Your task to perform on an android device: Go to Wikipedia Image 0: 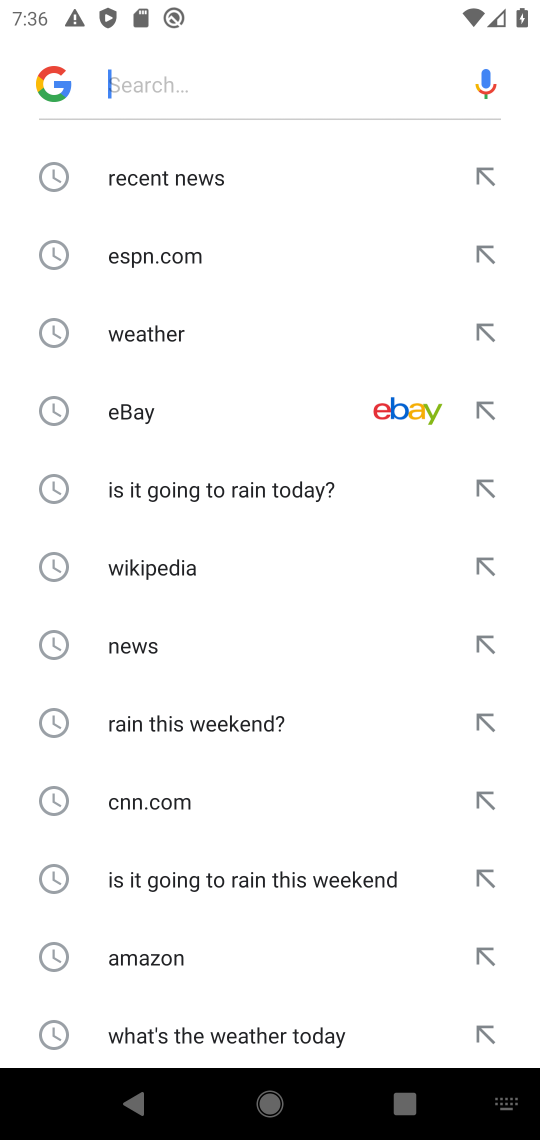
Step 0: press home button
Your task to perform on an android device: Go to Wikipedia Image 1: 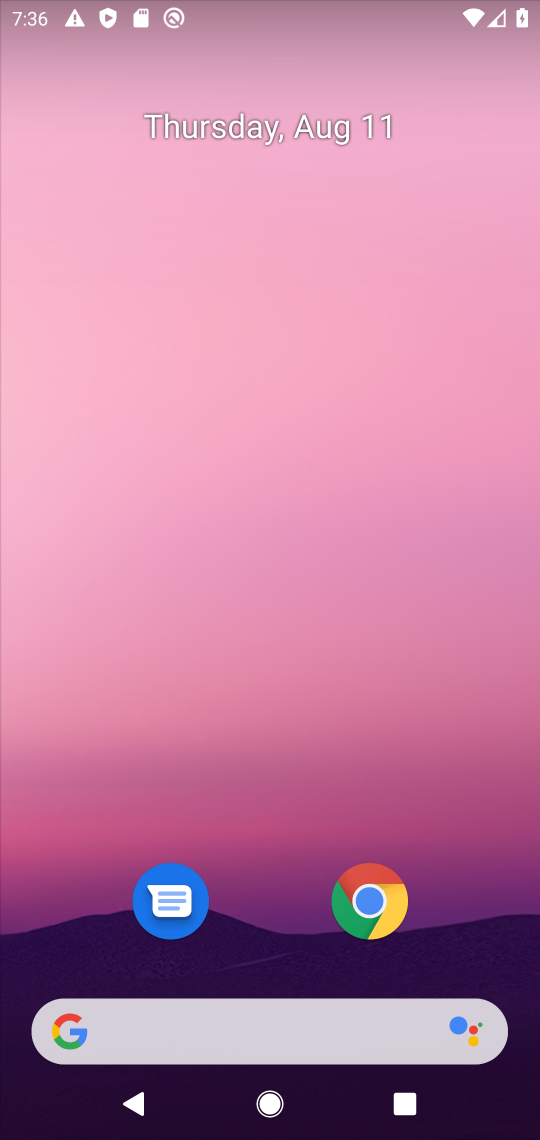
Step 1: drag from (248, 890) to (114, 2)
Your task to perform on an android device: Go to Wikipedia Image 2: 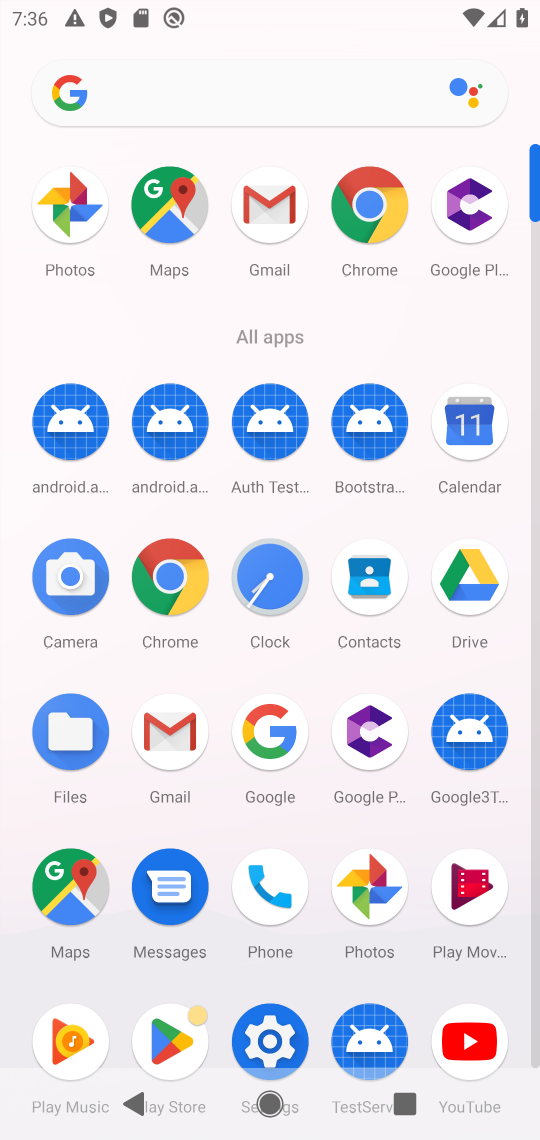
Step 2: click (180, 585)
Your task to perform on an android device: Go to Wikipedia Image 3: 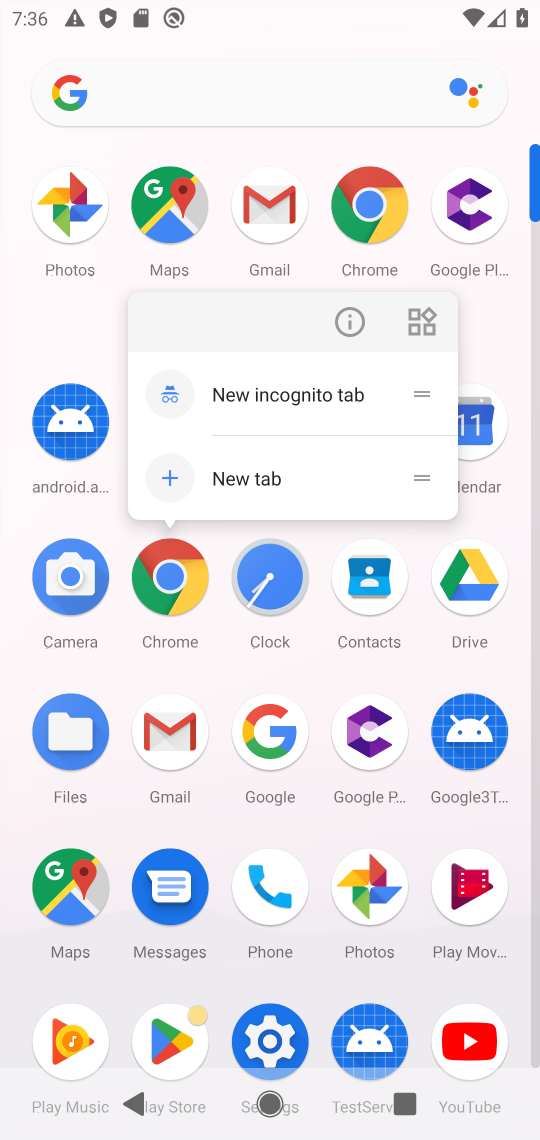
Step 3: click (175, 584)
Your task to perform on an android device: Go to Wikipedia Image 4: 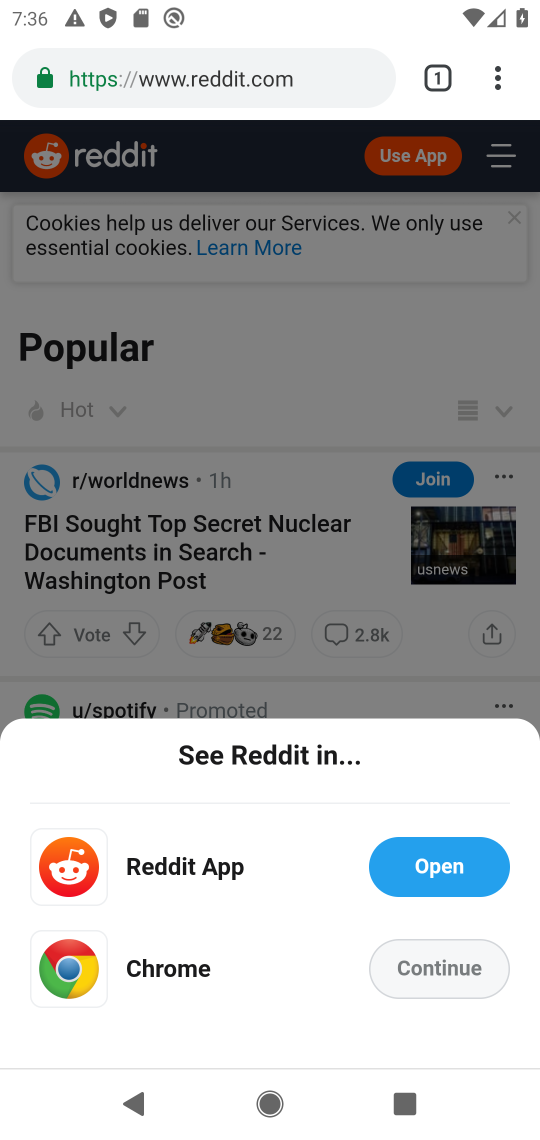
Step 4: click (327, 94)
Your task to perform on an android device: Go to Wikipedia Image 5: 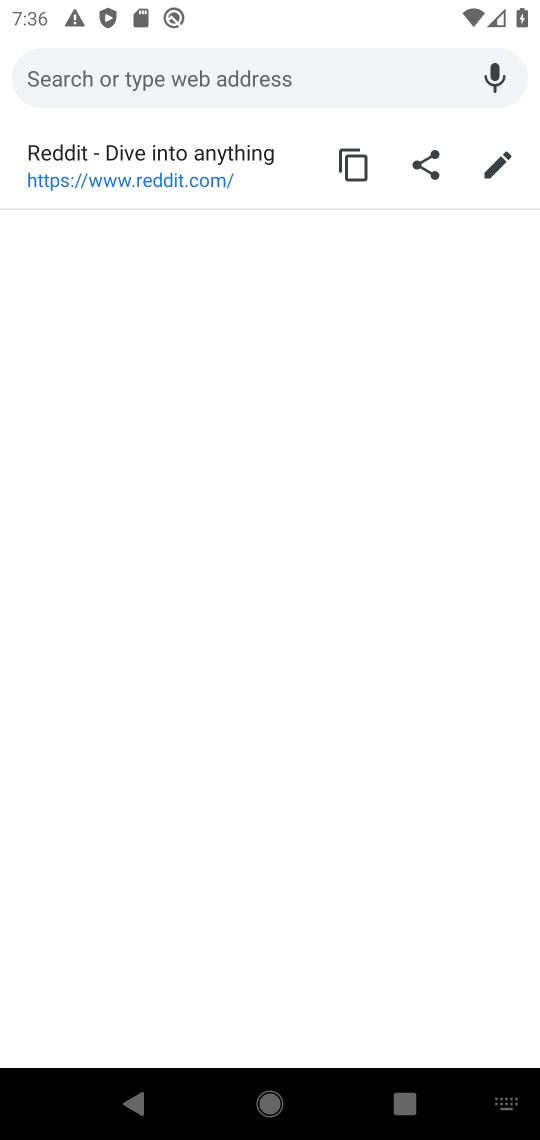
Step 5: type "wikipedia"
Your task to perform on an android device: Go to Wikipedia Image 6: 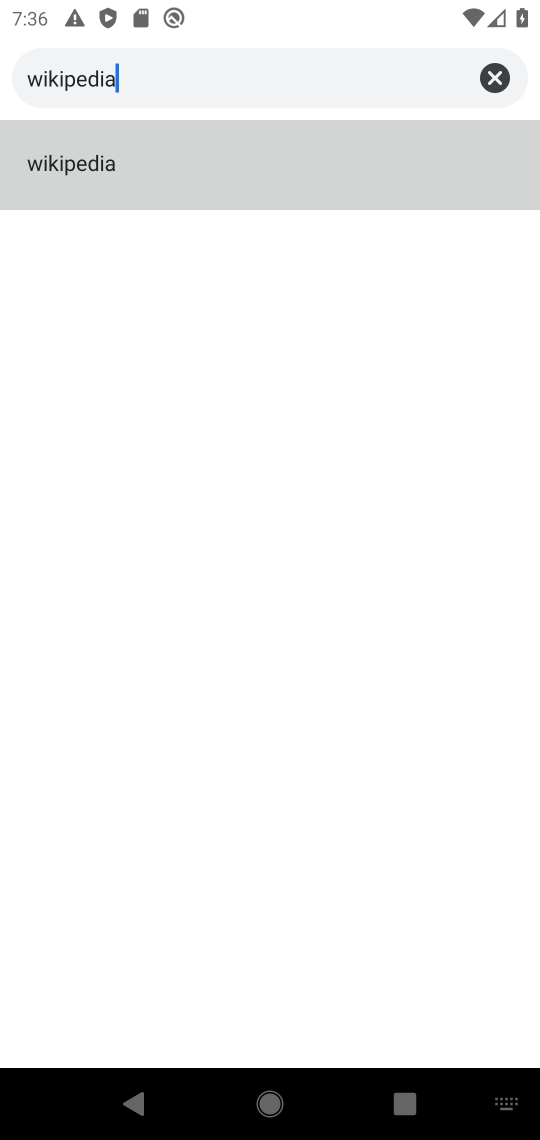
Step 6: click (125, 169)
Your task to perform on an android device: Go to Wikipedia Image 7: 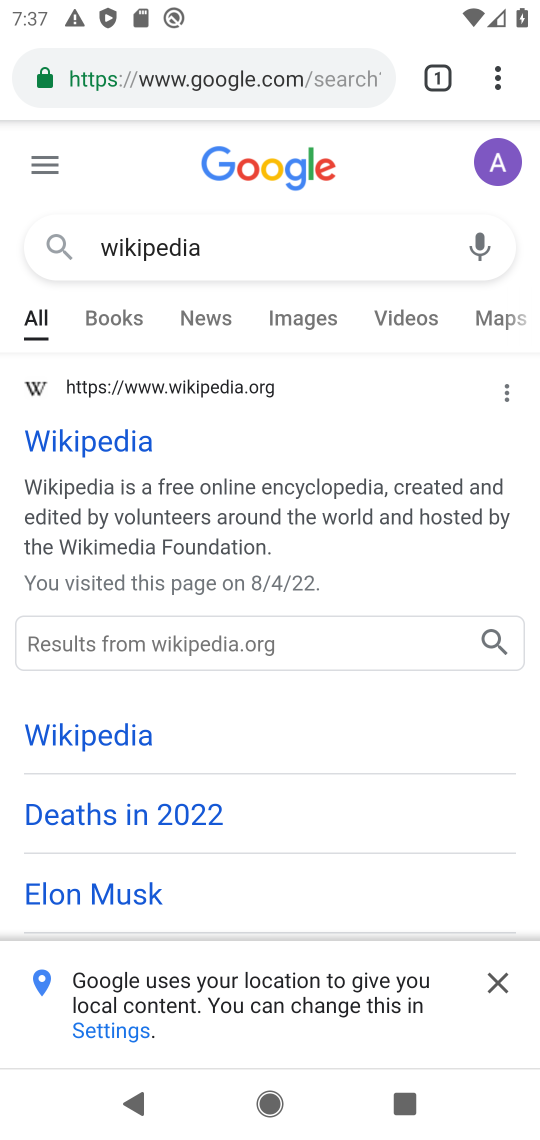
Step 7: click (109, 439)
Your task to perform on an android device: Go to Wikipedia Image 8: 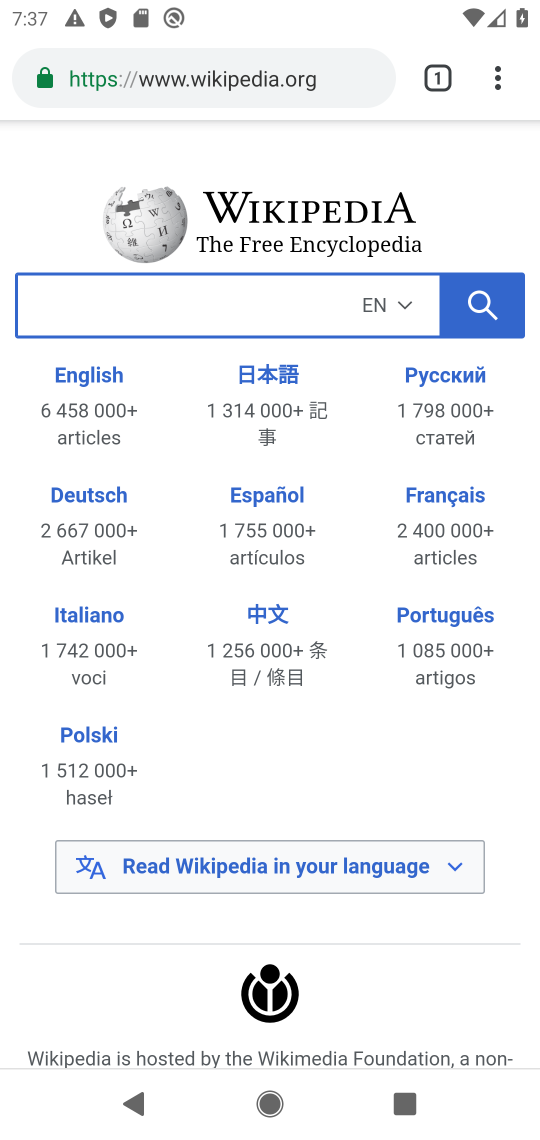
Step 8: task complete